Your task to perform on an android device: Go to location settings Image 0: 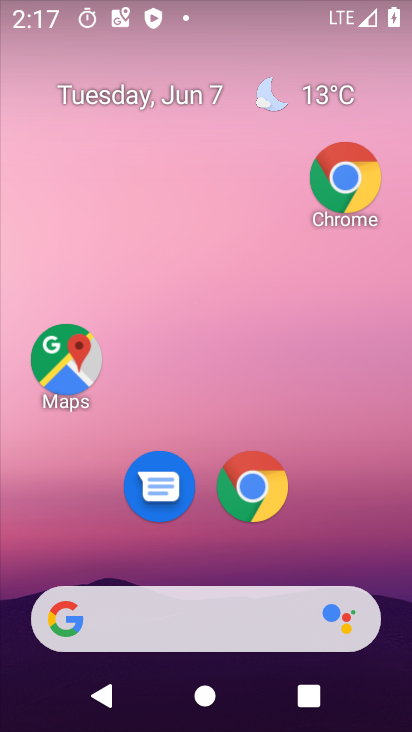
Step 0: drag from (100, 572) to (208, 96)
Your task to perform on an android device: Go to location settings Image 1: 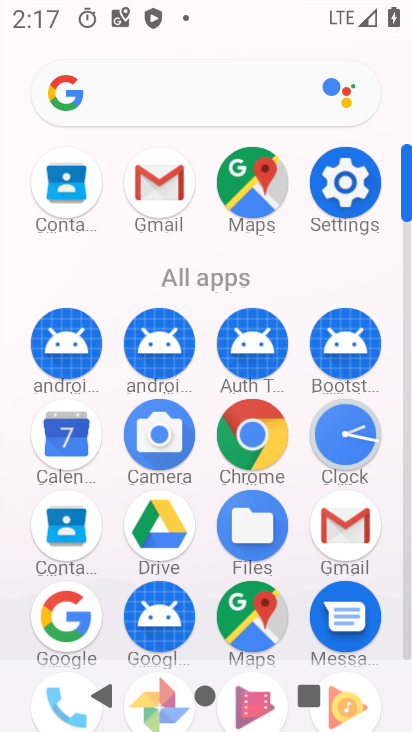
Step 1: drag from (165, 557) to (270, 271)
Your task to perform on an android device: Go to location settings Image 2: 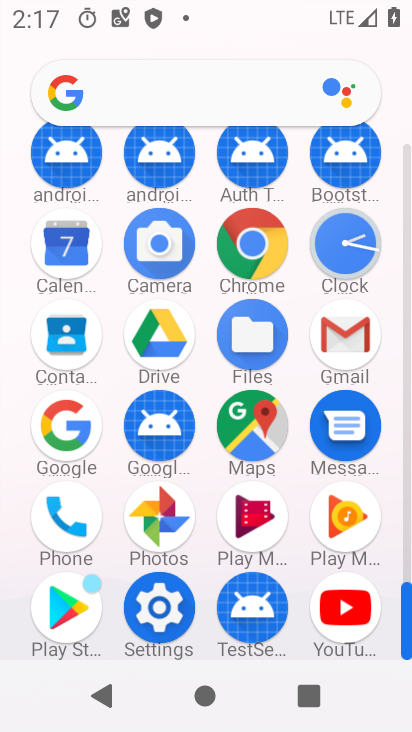
Step 2: click (165, 610)
Your task to perform on an android device: Go to location settings Image 3: 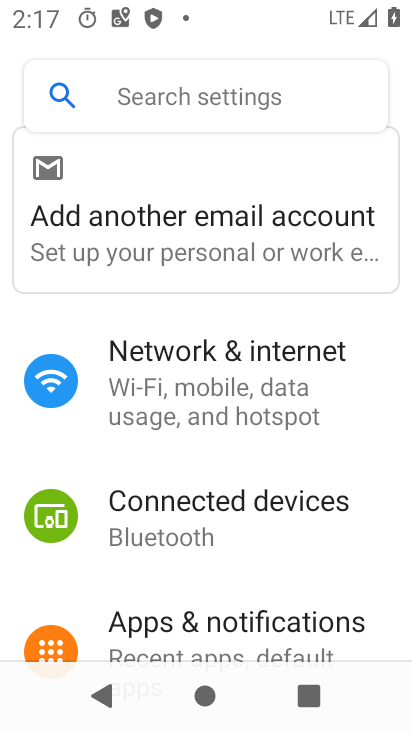
Step 3: drag from (173, 591) to (324, 118)
Your task to perform on an android device: Go to location settings Image 4: 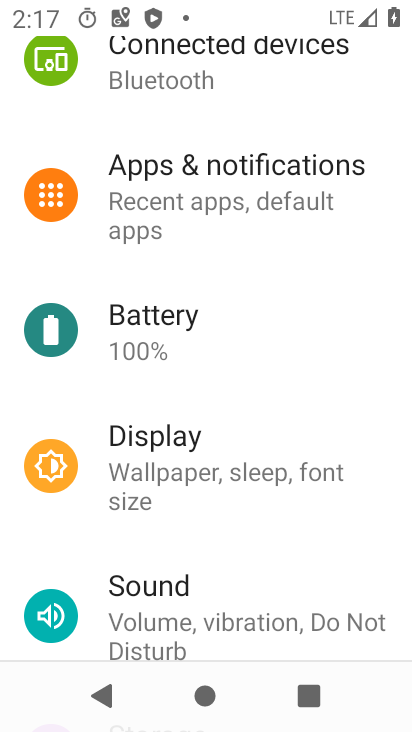
Step 4: drag from (168, 578) to (318, 116)
Your task to perform on an android device: Go to location settings Image 5: 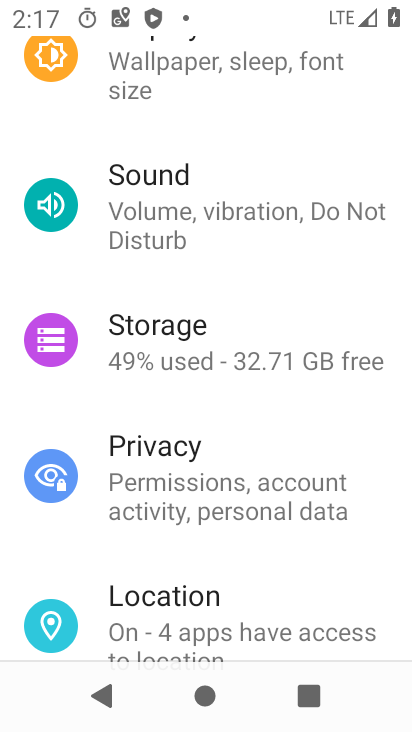
Step 5: drag from (149, 599) to (230, 389)
Your task to perform on an android device: Go to location settings Image 6: 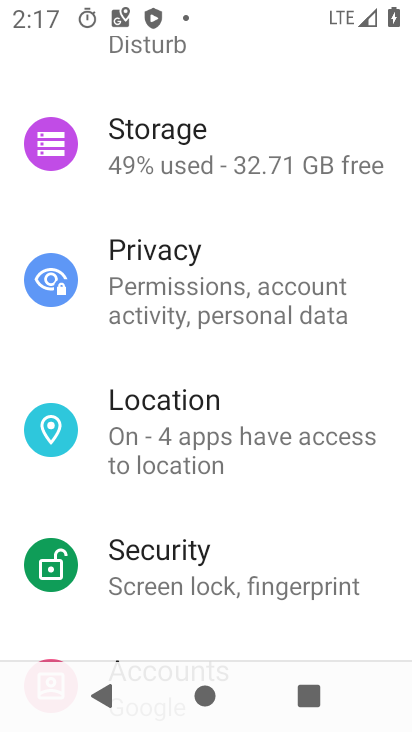
Step 6: click (177, 447)
Your task to perform on an android device: Go to location settings Image 7: 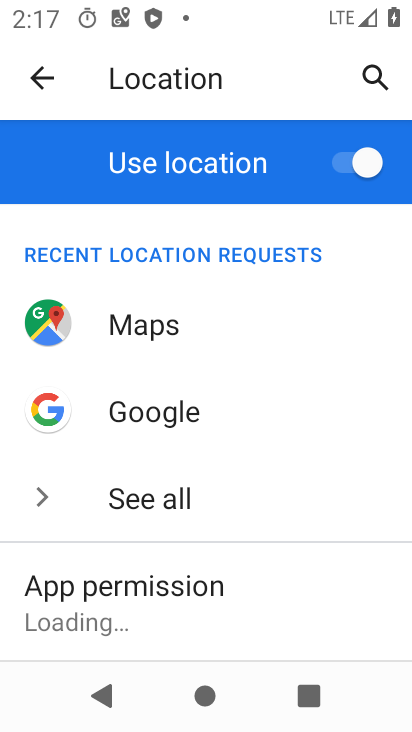
Step 7: task complete